Your task to perform on an android device: turn off data saver in the chrome app Image 0: 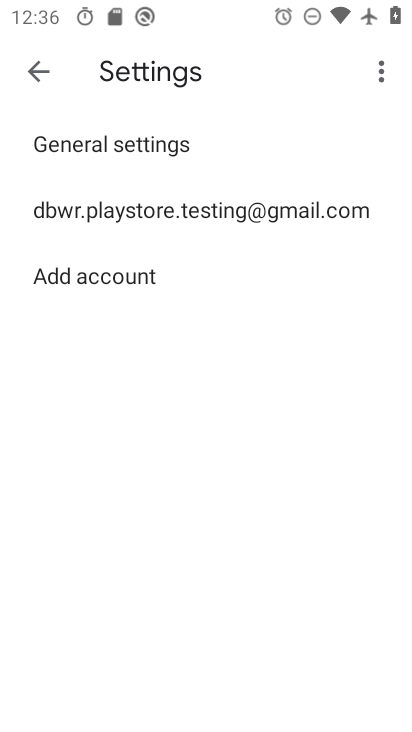
Step 0: press home button
Your task to perform on an android device: turn off data saver in the chrome app Image 1: 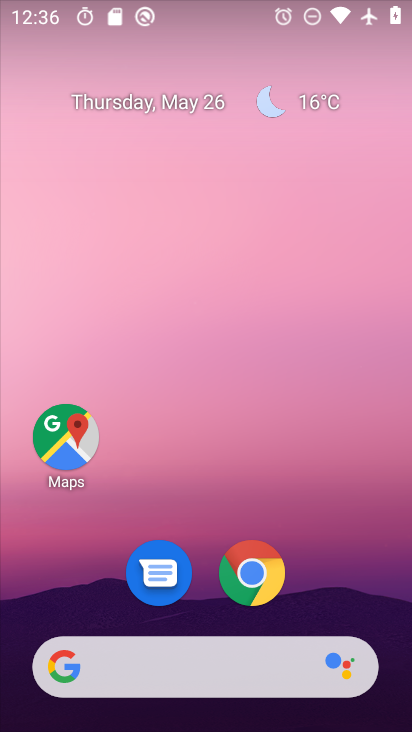
Step 1: click (258, 571)
Your task to perform on an android device: turn off data saver in the chrome app Image 2: 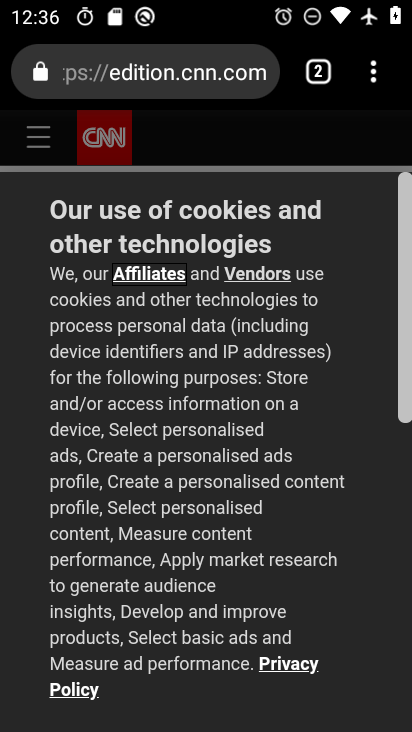
Step 2: click (378, 78)
Your task to perform on an android device: turn off data saver in the chrome app Image 3: 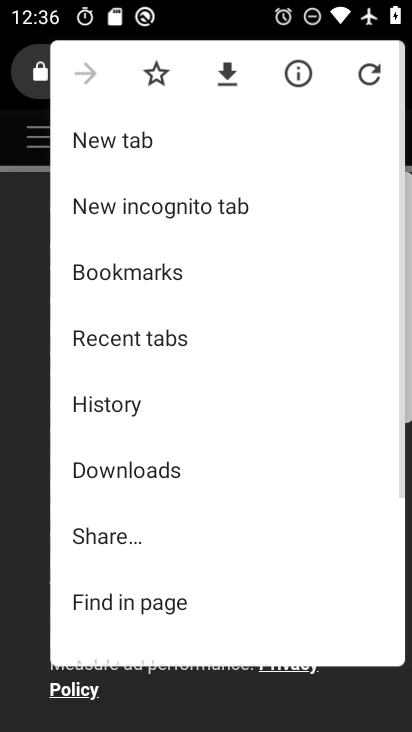
Step 3: drag from (228, 515) to (253, 85)
Your task to perform on an android device: turn off data saver in the chrome app Image 4: 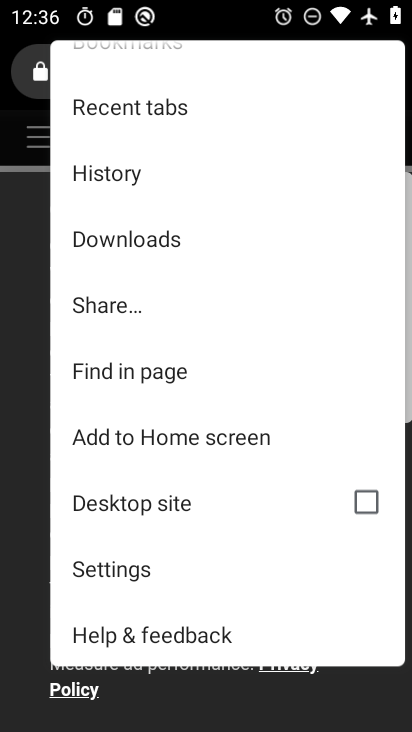
Step 4: click (102, 572)
Your task to perform on an android device: turn off data saver in the chrome app Image 5: 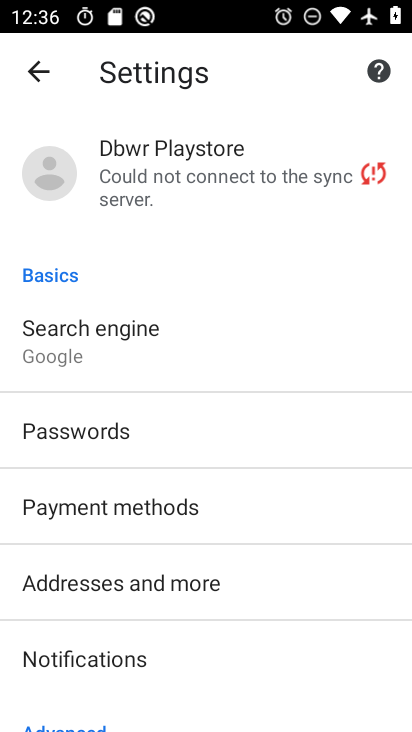
Step 5: drag from (223, 613) to (248, 84)
Your task to perform on an android device: turn off data saver in the chrome app Image 6: 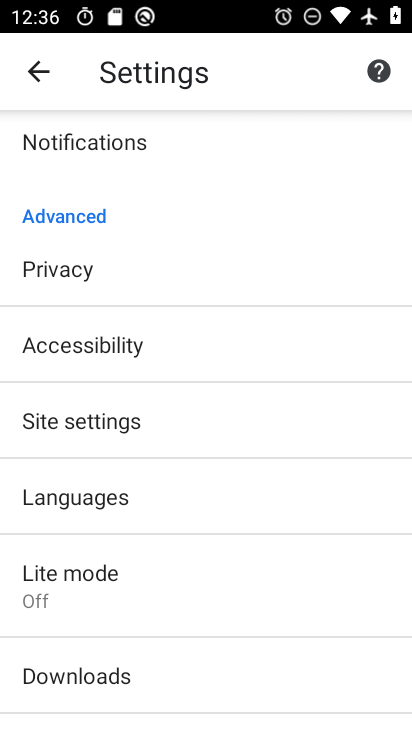
Step 6: drag from (191, 581) to (218, 240)
Your task to perform on an android device: turn off data saver in the chrome app Image 7: 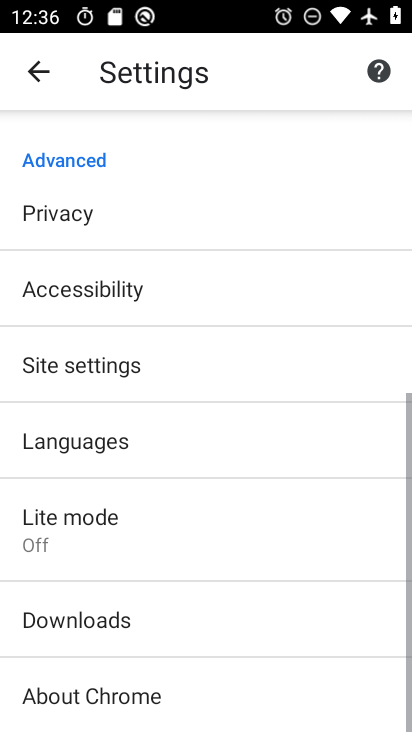
Step 7: click (46, 530)
Your task to perform on an android device: turn off data saver in the chrome app Image 8: 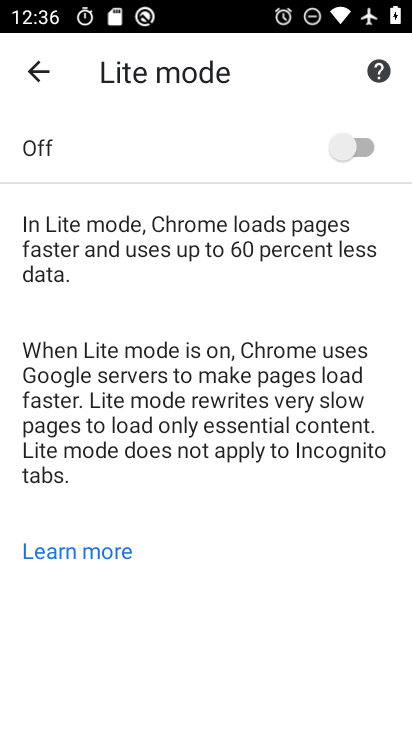
Step 8: task complete